Your task to perform on an android device: change your default location settings in chrome Image 0: 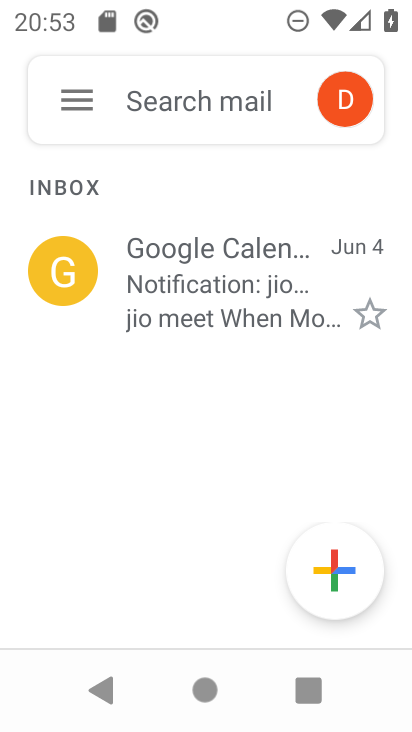
Step 0: press home button
Your task to perform on an android device: change your default location settings in chrome Image 1: 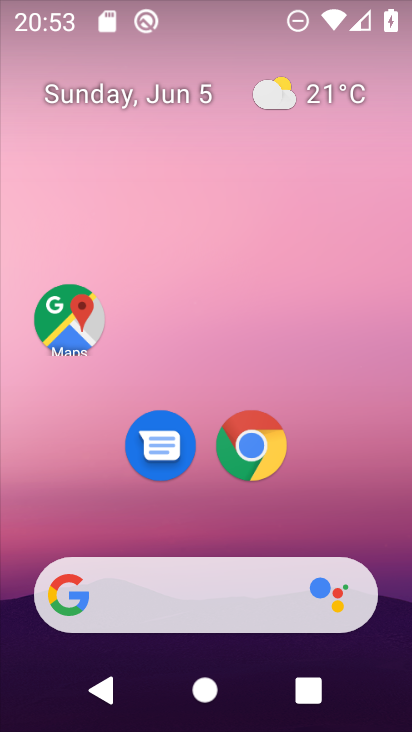
Step 1: click (249, 446)
Your task to perform on an android device: change your default location settings in chrome Image 2: 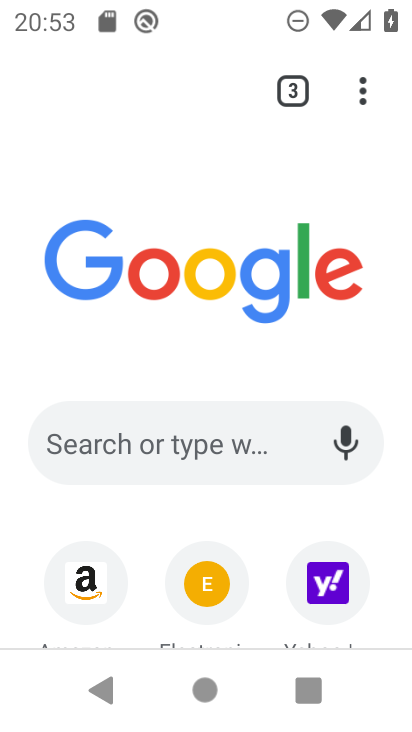
Step 2: drag from (361, 80) to (182, 467)
Your task to perform on an android device: change your default location settings in chrome Image 3: 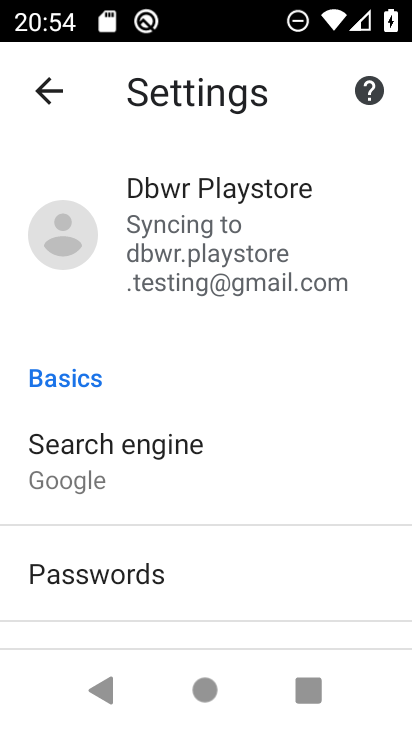
Step 3: drag from (304, 519) to (295, 91)
Your task to perform on an android device: change your default location settings in chrome Image 4: 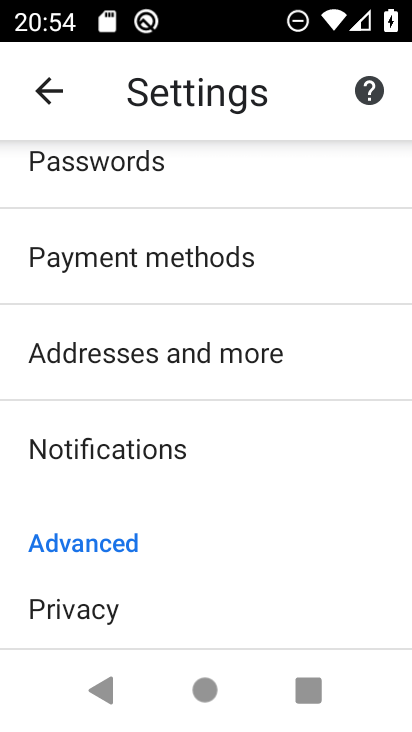
Step 4: drag from (266, 565) to (264, 189)
Your task to perform on an android device: change your default location settings in chrome Image 5: 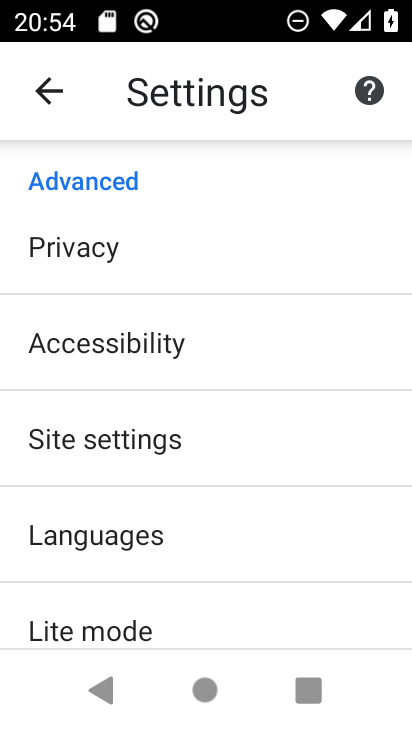
Step 5: click (118, 427)
Your task to perform on an android device: change your default location settings in chrome Image 6: 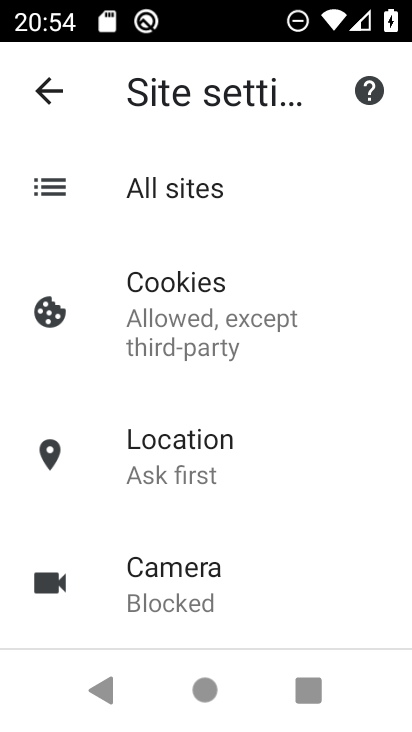
Step 6: click (161, 447)
Your task to perform on an android device: change your default location settings in chrome Image 7: 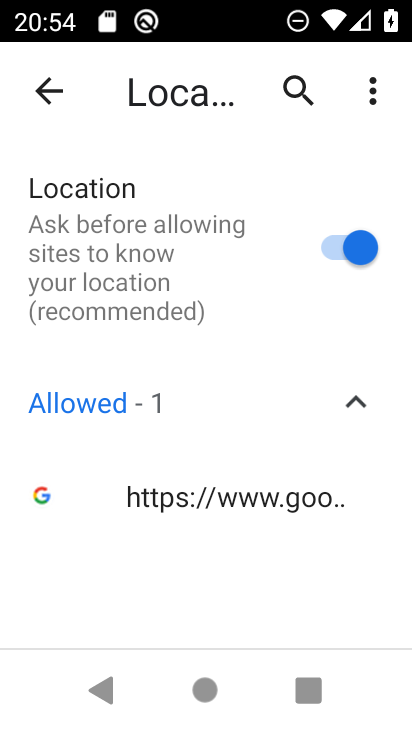
Step 7: drag from (369, 267) to (357, 390)
Your task to perform on an android device: change your default location settings in chrome Image 8: 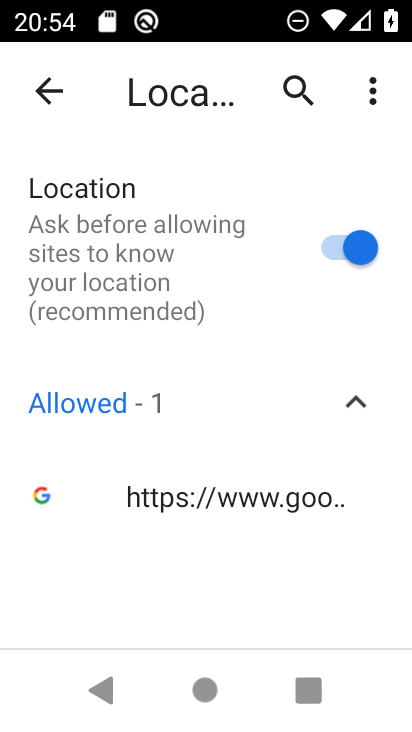
Step 8: click (353, 388)
Your task to perform on an android device: change your default location settings in chrome Image 9: 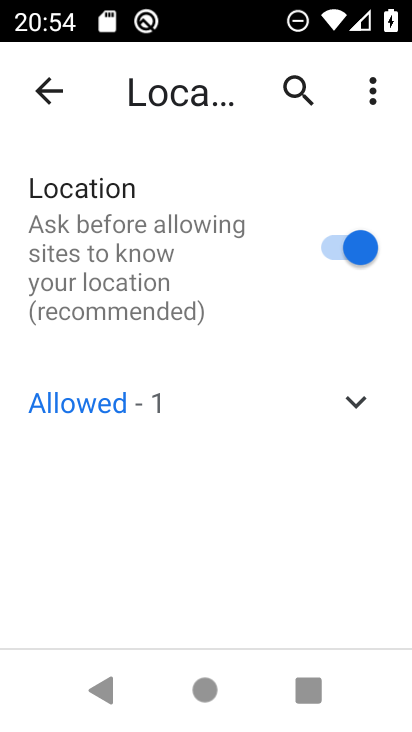
Step 9: click (352, 396)
Your task to perform on an android device: change your default location settings in chrome Image 10: 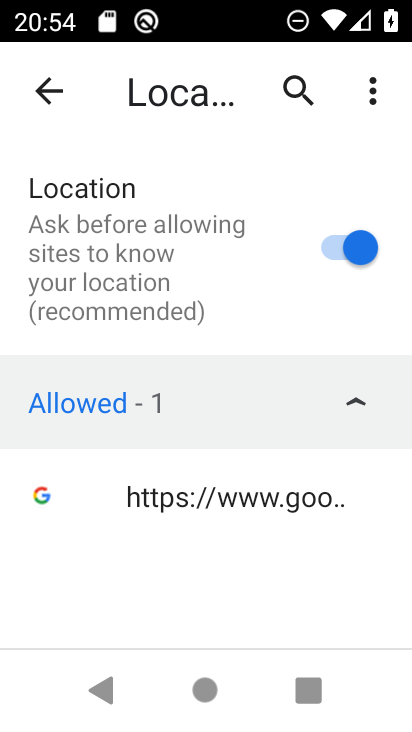
Step 10: click (365, 250)
Your task to perform on an android device: change your default location settings in chrome Image 11: 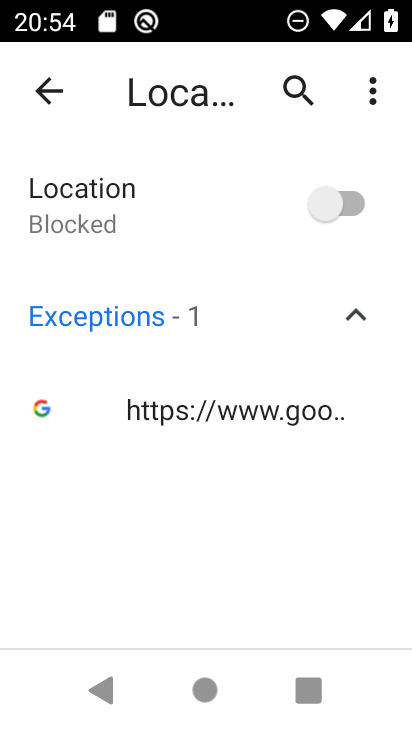
Step 11: task complete